Your task to perform on an android device: change timer sound Image 0: 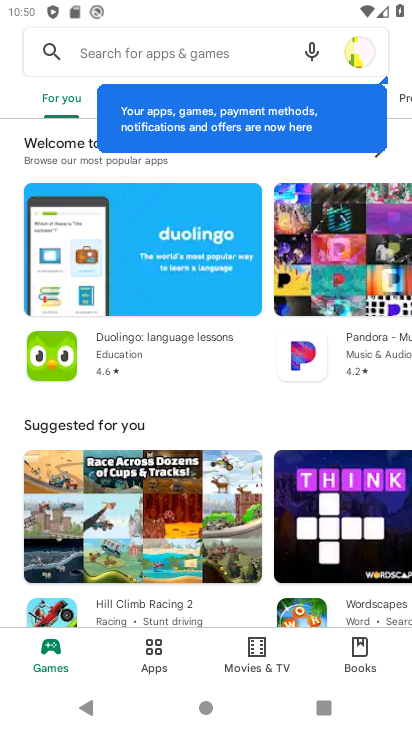
Step 0: task complete